Your task to perform on an android device: Open Android settings Image 0: 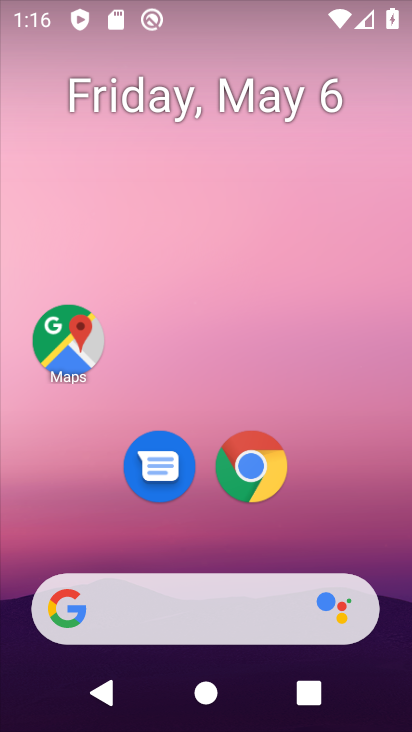
Step 0: press home button
Your task to perform on an android device: Open Android settings Image 1: 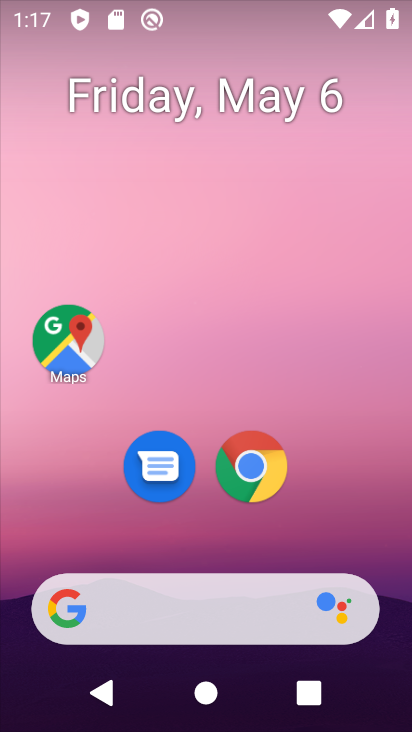
Step 1: drag from (182, 528) to (267, 61)
Your task to perform on an android device: Open Android settings Image 2: 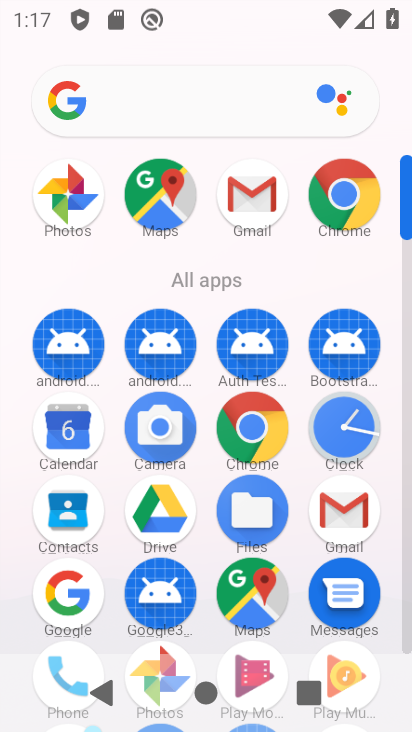
Step 2: drag from (206, 624) to (255, 150)
Your task to perform on an android device: Open Android settings Image 3: 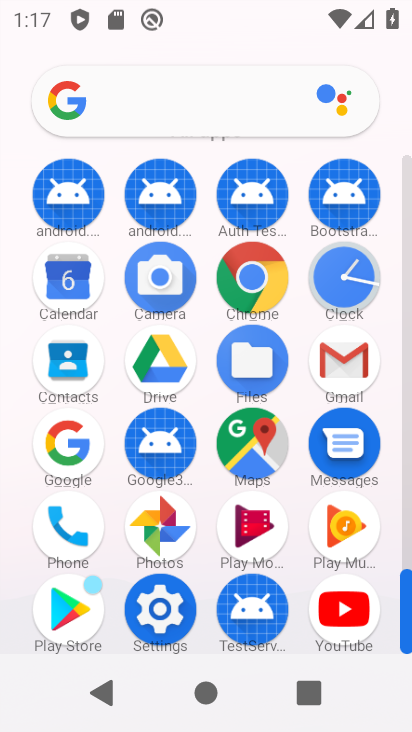
Step 3: click (158, 609)
Your task to perform on an android device: Open Android settings Image 4: 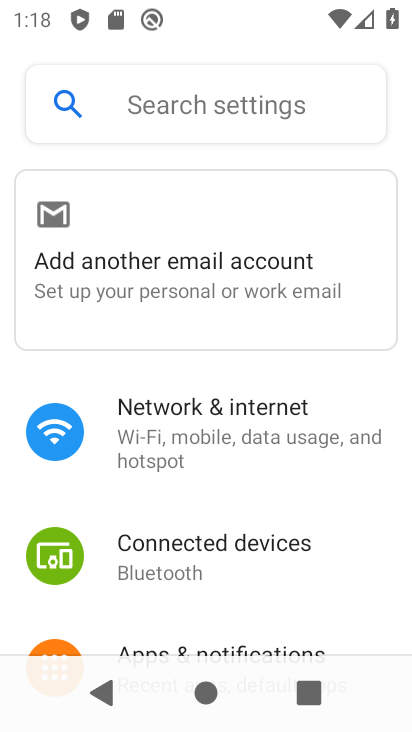
Step 4: drag from (206, 618) to (252, 211)
Your task to perform on an android device: Open Android settings Image 5: 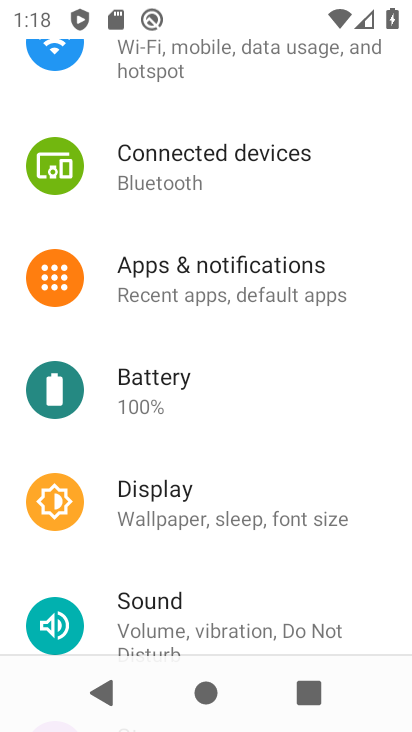
Step 5: drag from (259, 602) to (297, 112)
Your task to perform on an android device: Open Android settings Image 6: 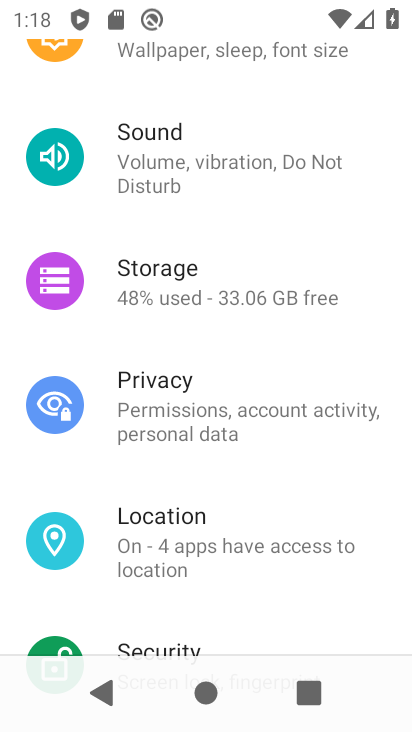
Step 6: drag from (212, 608) to (244, 101)
Your task to perform on an android device: Open Android settings Image 7: 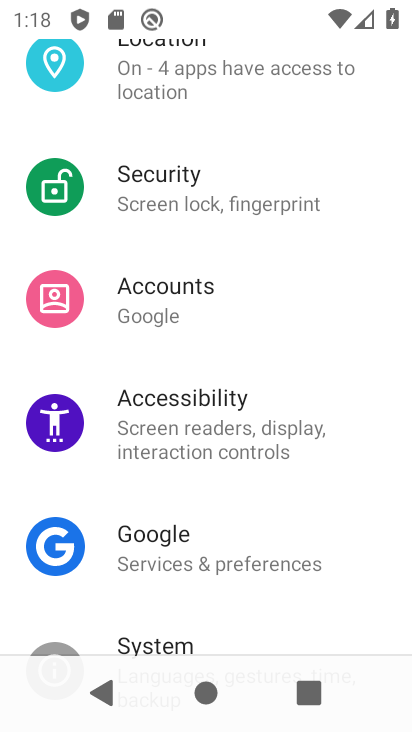
Step 7: drag from (238, 584) to (255, 183)
Your task to perform on an android device: Open Android settings Image 8: 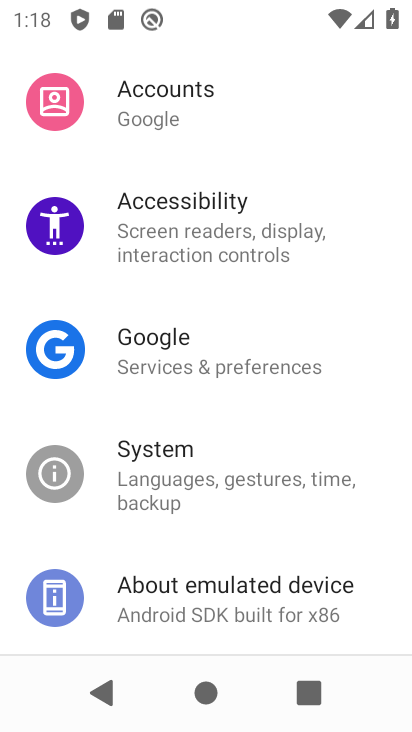
Step 8: click (202, 598)
Your task to perform on an android device: Open Android settings Image 9: 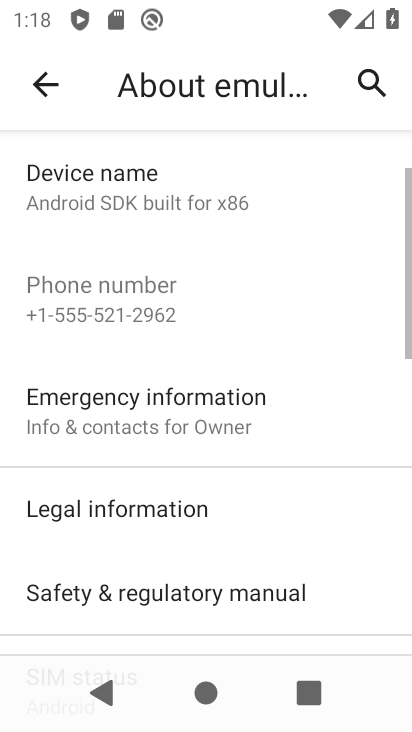
Step 9: drag from (178, 593) to (171, 83)
Your task to perform on an android device: Open Android settings Image 10: 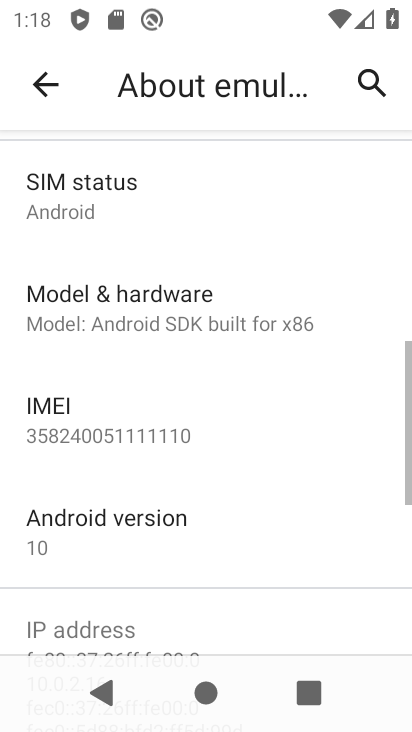
Step 10: click (135, 549)
Your task to perform on an android device: Open Android settings Image 11: 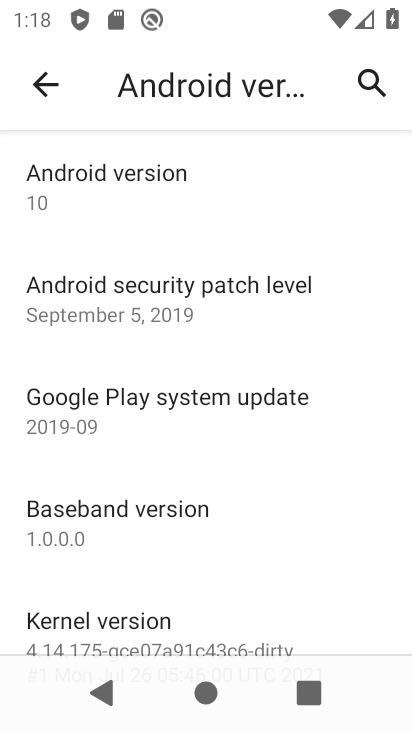
Step 11: task complete